Your task to perform on an android device: Google the capital of Colombia Image 0: 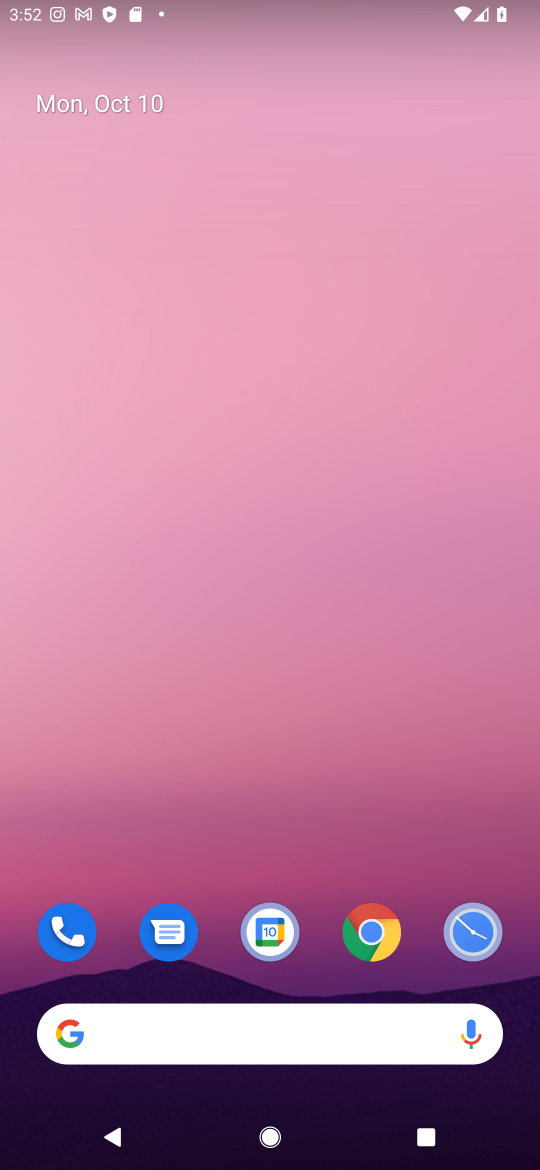
Step 0: press home button
Your task to perform on an android device: Google the capital of Colombia Image 1: 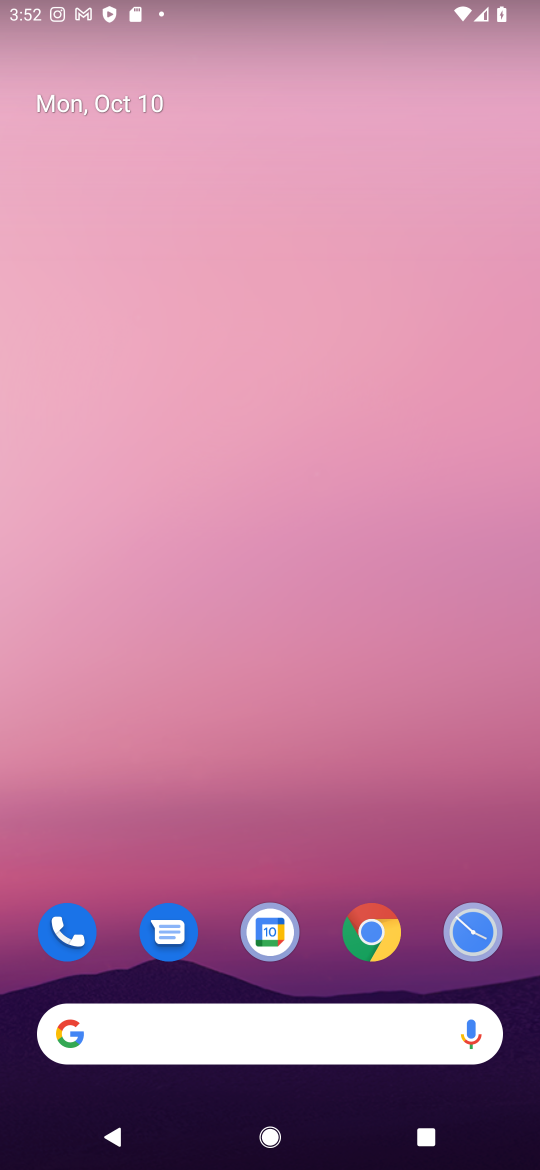
Step 1: click (314, 1029)
Your task to perform on an android device: Google the capital of Colombia Image 2: 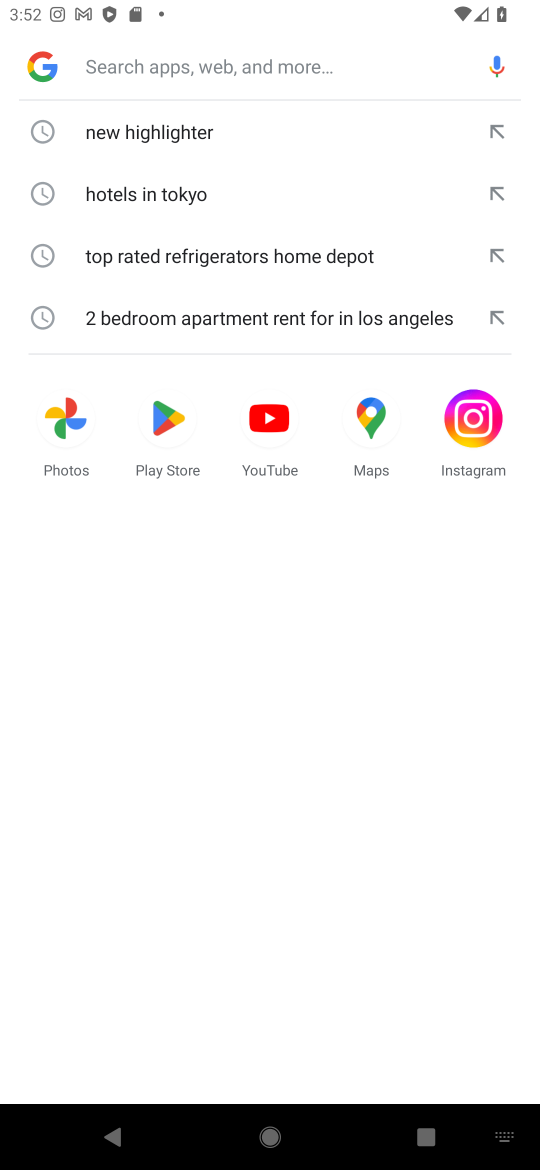
Step 2: type "capital of Colombia"
Your task to perform on an android device: Google the capital of Colombia Image 3: 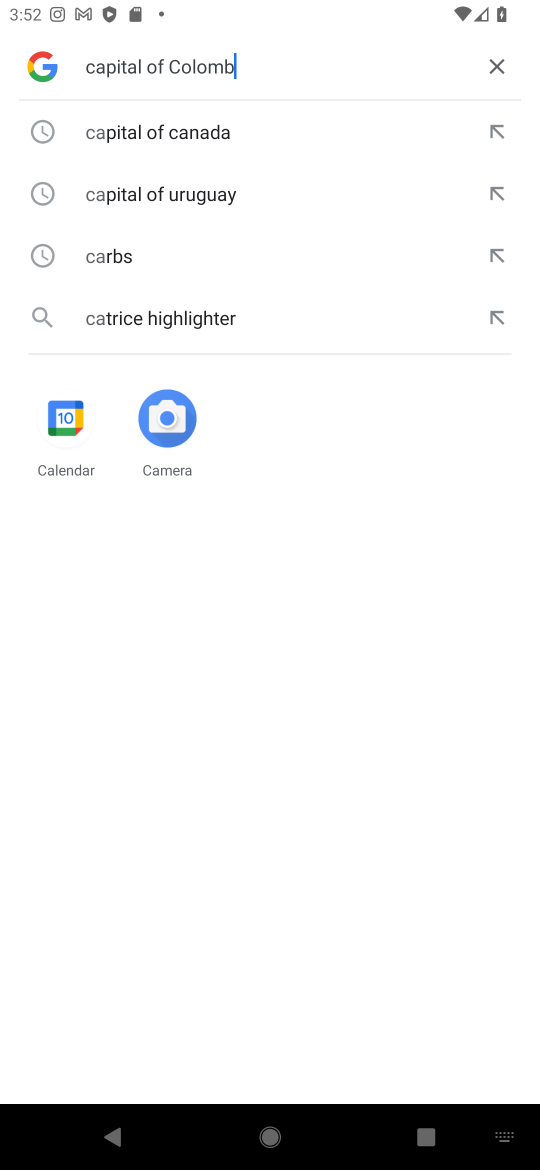
Step 3: press enter
Your task to perform on an android device: Google the capital of Colombia Image 4: 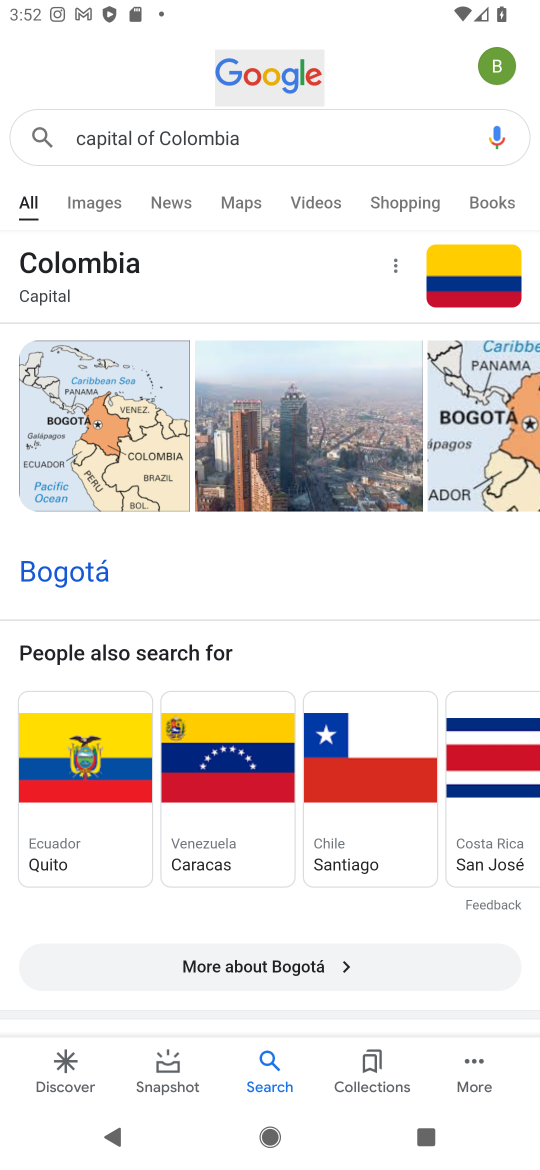
Step 4: task complete